Your task to perform on an android device: open a new tab in the chrome app Image 0: 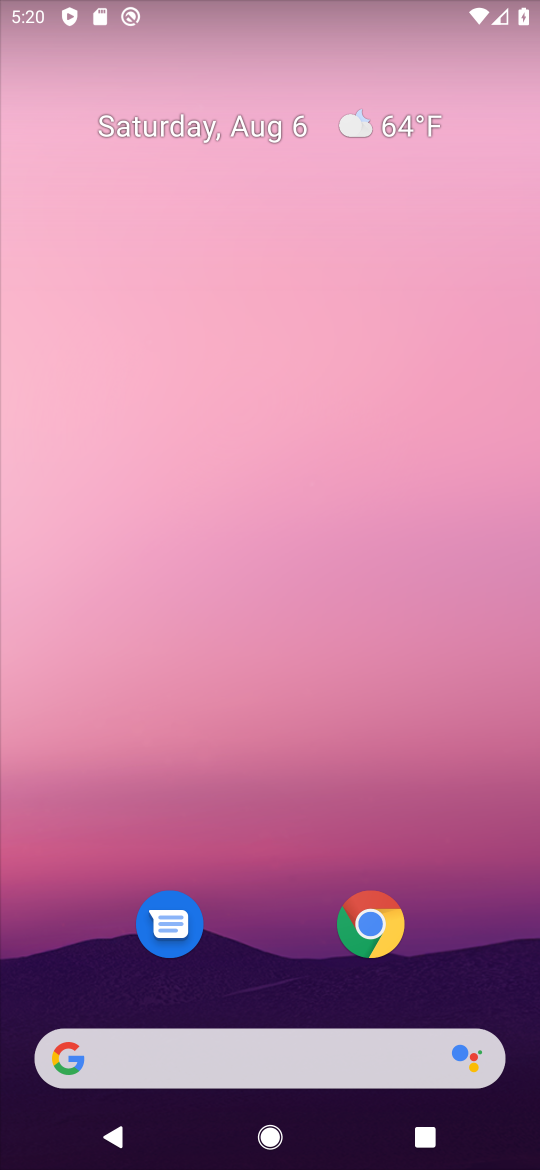
Step 0: click (370, 922)
Your task to perform on an android device: open a new tab in the chrome app Image 1: 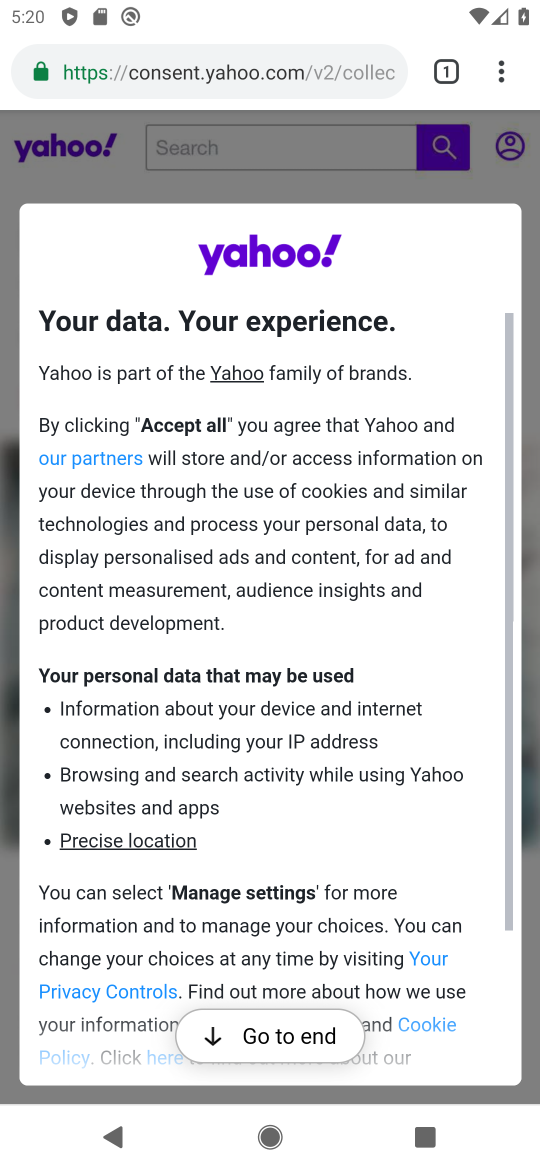
Step 1: click (498, 59)
Your task to perform on an android device: open a new tab in the chrome app Image 2: 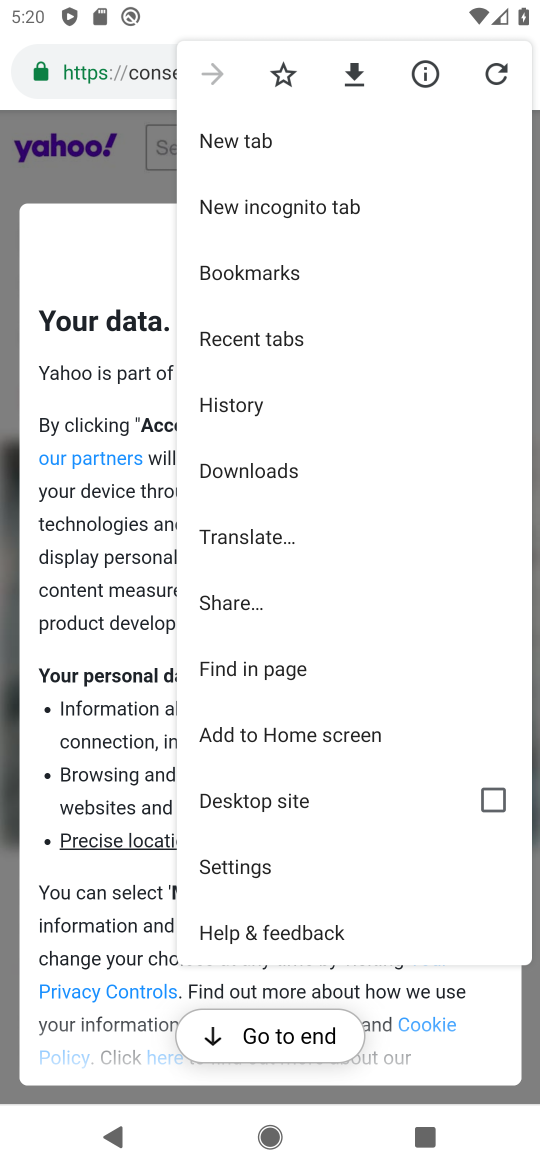
Step 2: click (249, 133)
Your task to perform on an android device: open a new tab in the chrome app Image 3: 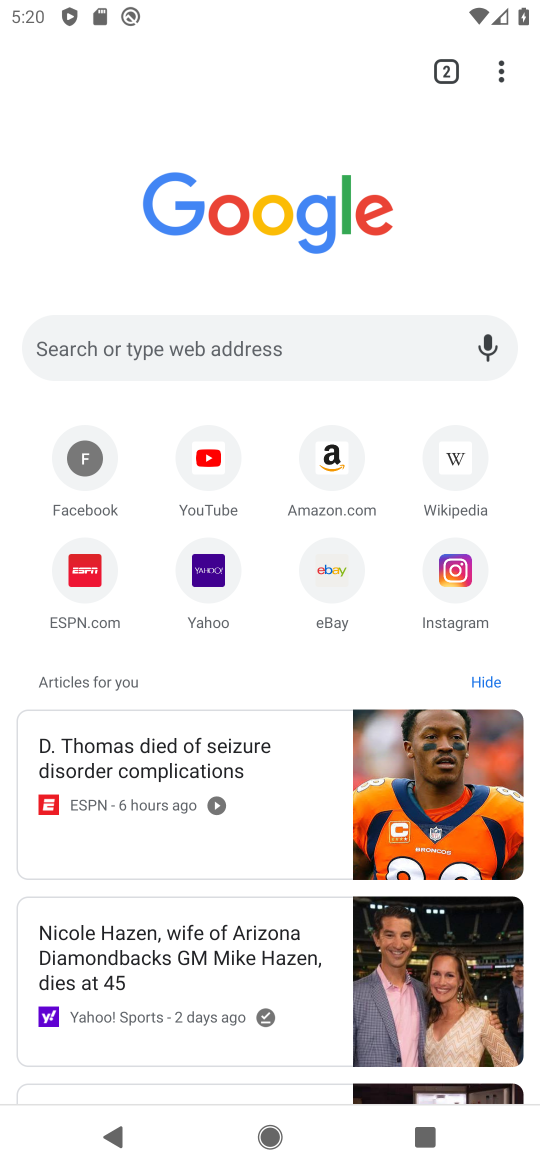
Step 3: task complete